Your task to perform on an android device: Open the Play Movies app and select the watchlist tab. Image 0: 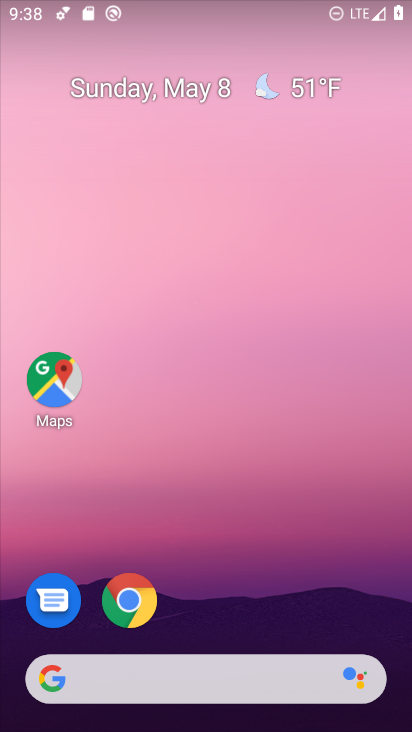
Step 0: drag from (380, 629) to (326, 18)
Your task to perform on an android device: Open the Play Movies app and select the watchlist tab. Image 1: 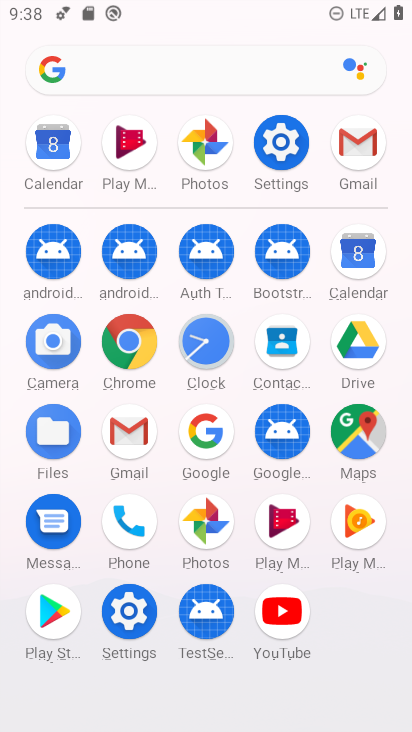
Step 1: click (280, 534)
Your task to perform on an android device: Open the Play Movies app and select the watchlist tab. Image 2: 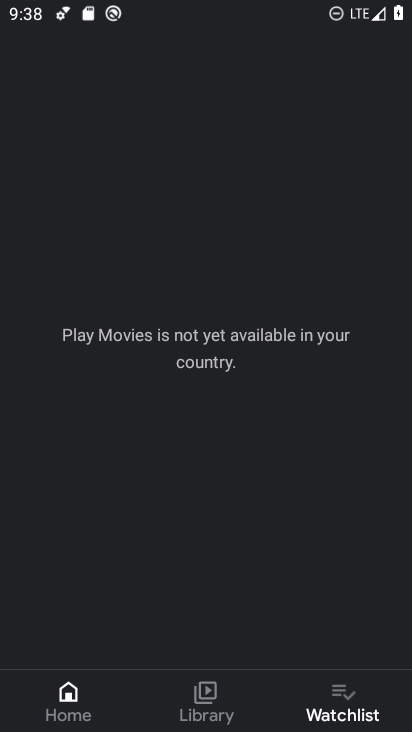
Step 2: click (325, 708)
Your task to perform on an android device: Open the Play Movies app and select the watchlist tab. Image 3: 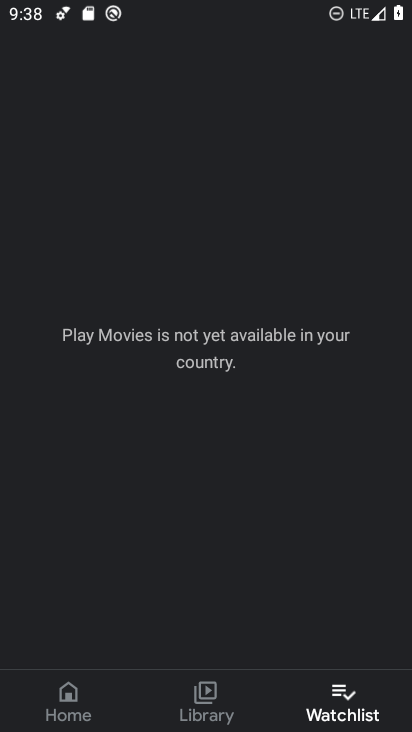
Step 3: task complete